Your task to perform on an android device: Search for "dell xps" on costco.com, select the first entry, add it to the cart, then select checkout. Image 0: 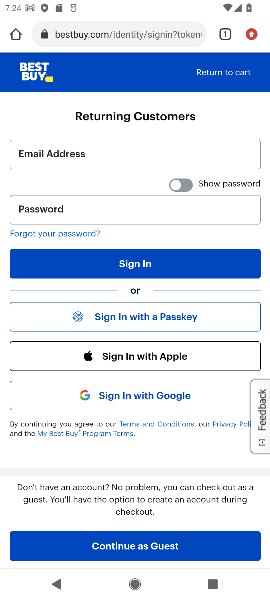
Step 0: click (139, 35)
Your task to perform on an android device: Search for "dell xps" on costco.com, select the first entry, add it to the cart, then select checkout. Image 1: 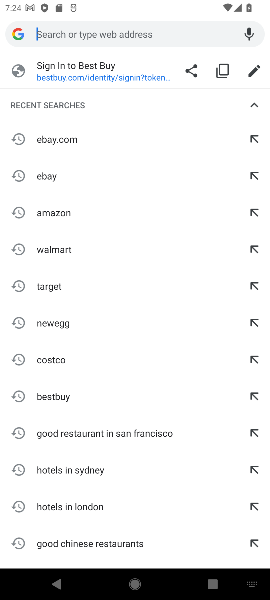
Step 1: click (51, 355)
Your task to perform on an android device: Search for "dell xps" on costco.com, select the first entry, add it to the cart, then select checkout. Image 2: 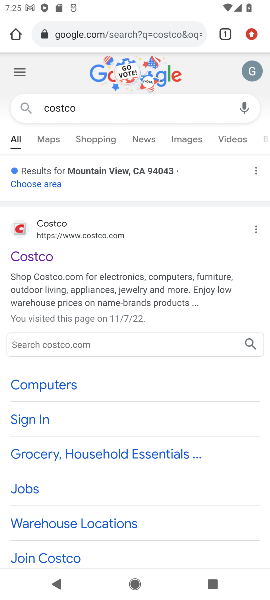
Step 2: click (40, 248)
Your task to perform on an android device: Search for "dell xps" on costco.com, select the first entry, add it to the cart, then select checkout. Image 3: 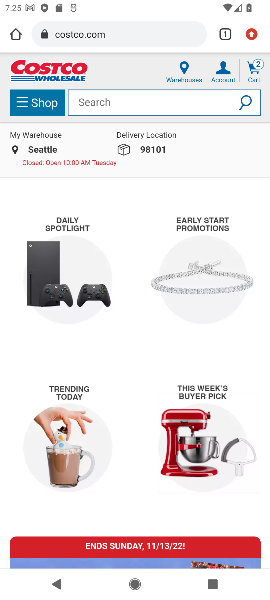
Step 3: click (133, 103)
Your task to perform on an android device: Search for "dell xps" on costco.com, select the first entry, add it to the cart, then select checkout. Image 4: 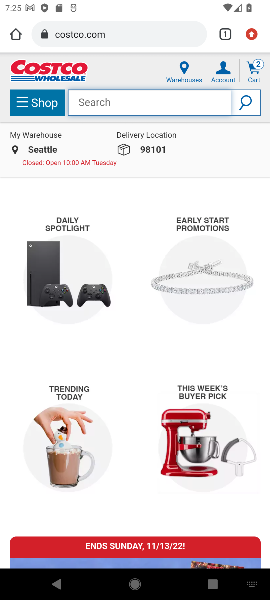
Step 4: type "dell xps"
Your task to perform on an android device: Search for "dell xps" on costco.com, select the first entry, add it to the cart, then select checkout. Image 5: 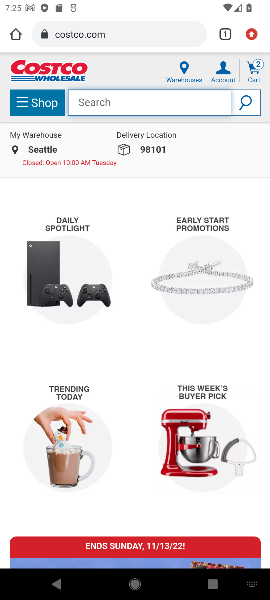
Step 5: press enter
Your task to perform on an android device: Search for "dell xps" on costco.com, select the first entry, add it to the cart, then select checkout. Image 6: 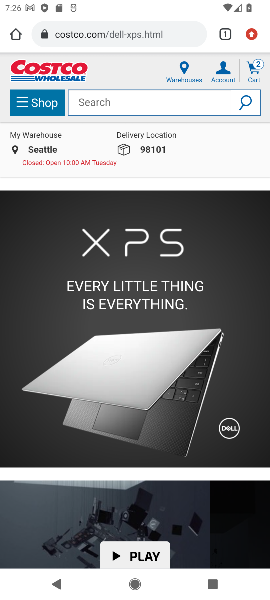
Step 6: task complete